Your task to perform on an android device: Go to notification settings Image 0: 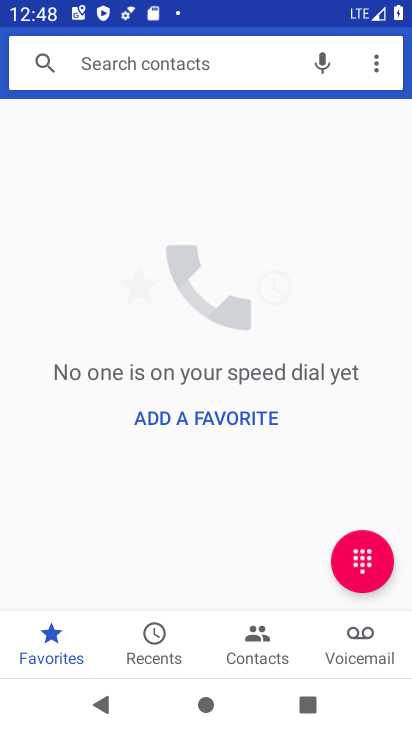
Step 0: press home button
Your task to perform on an android device: Go to notification settings Image 1: 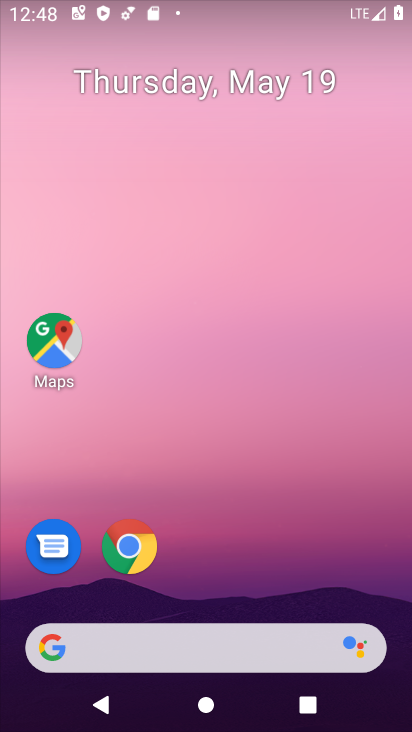
Step 1: drag from (135, 612) to (220, 2)
Your task to perform on an android device: Go to notification settings Image 2: 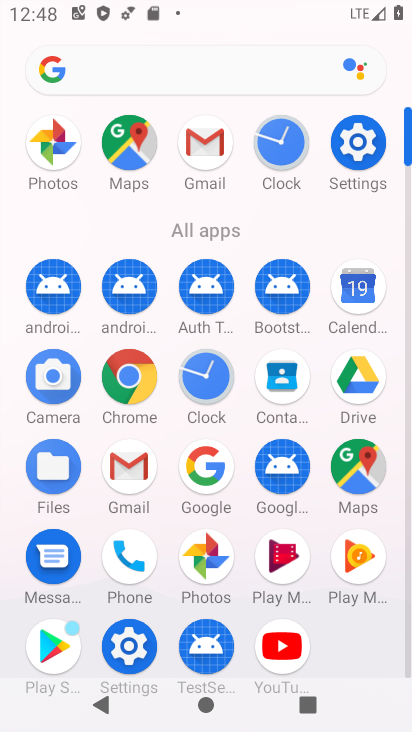
Step 2: click (337, 123)
Your task to perform on an android device: Go to notification settings Image 3: 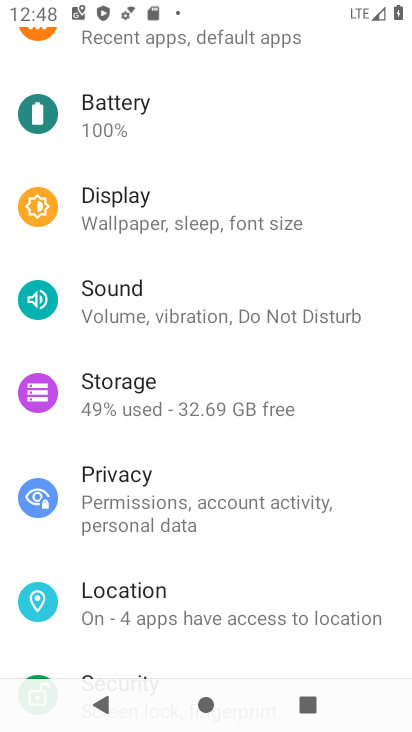
Step 3: drag from (196, 186) to (229, 582)
Your task to perform on an android device: Go to notification settings Image 4: 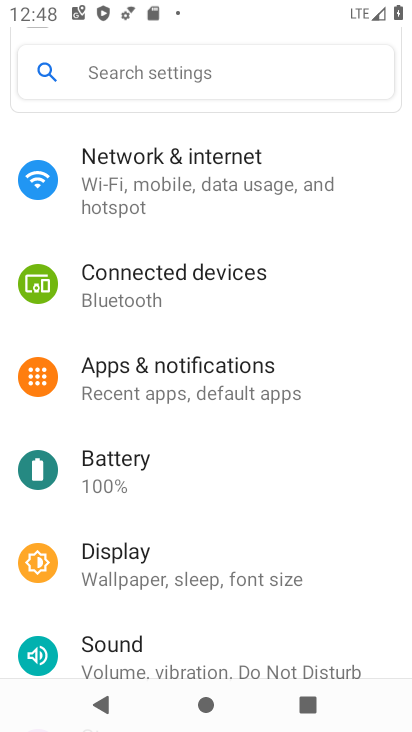
Step 4: click (173, 370)
Your task to perform on an android device: Go to notification settings Image 5: 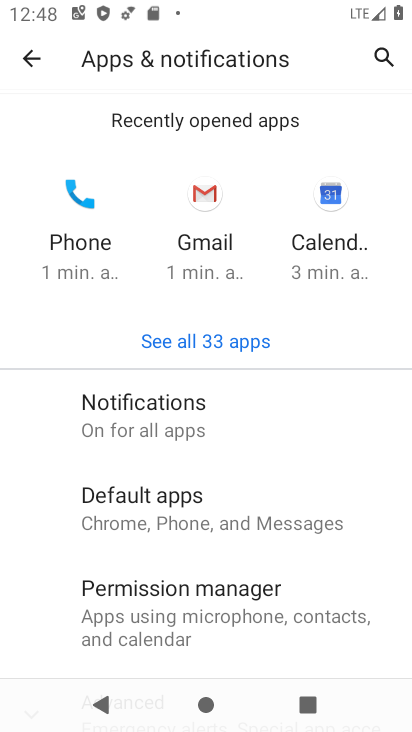
Step 5: click (170, 408)
Your task to perform on an android device: Go to notification settings Image 6: 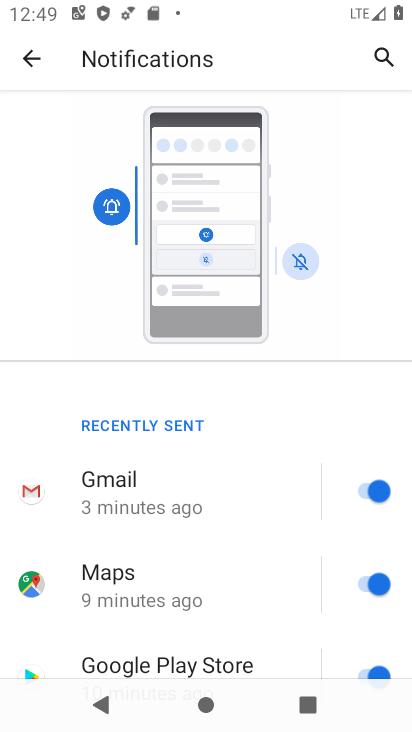
Step 6: drag from (141, 636) to (217, 139)
Your task to perform on an android device: Go to notification settings Image 7: 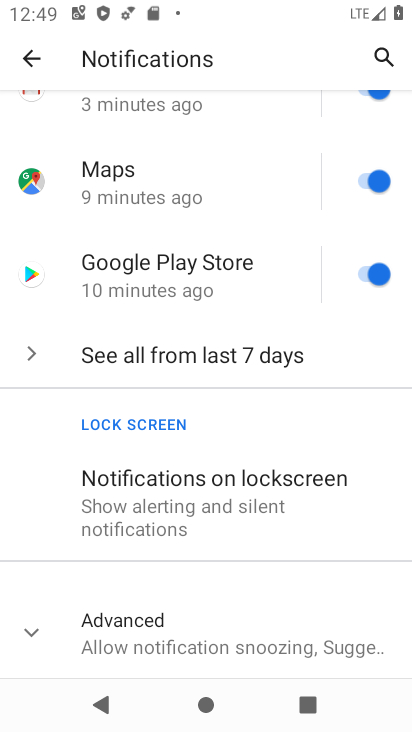
Step 7: click (174, 499)
Your task to perform on an android device: Go to notification settings Image 8: 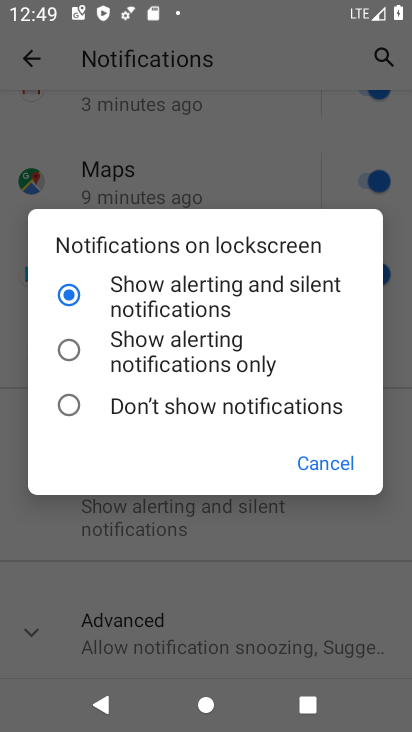
Step 8: click (155, 367)
Your task to perform on an android device: Go to notification settings Image 9: 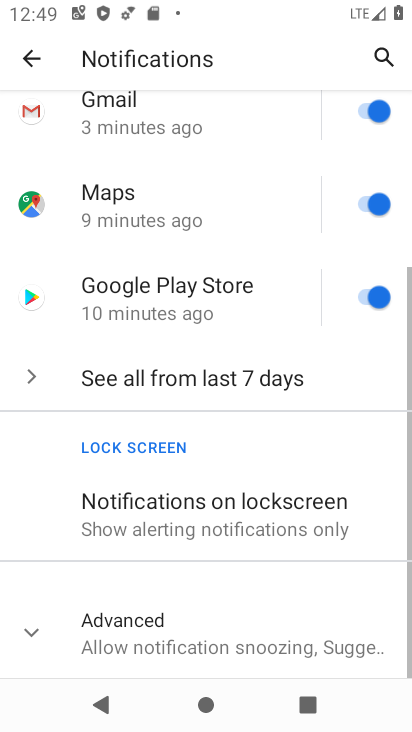
Step 9: task complete